Your task to perform on an android device: empty trash in google photos Image 0: 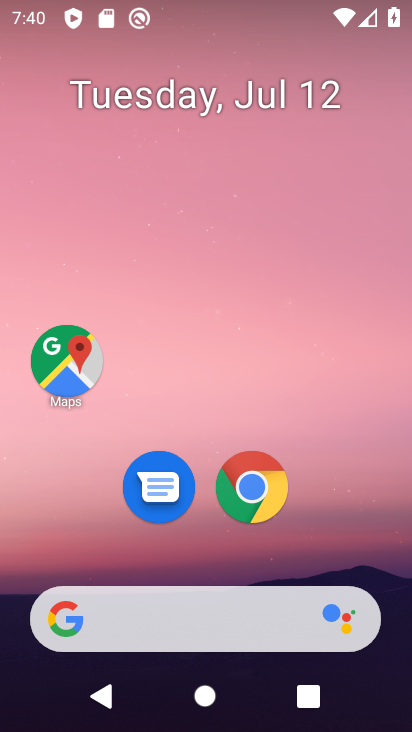
Step 0: drag from (218, 477) to (287, 19)
Your task to perform on an android device: empty trash in google photos Image 1: 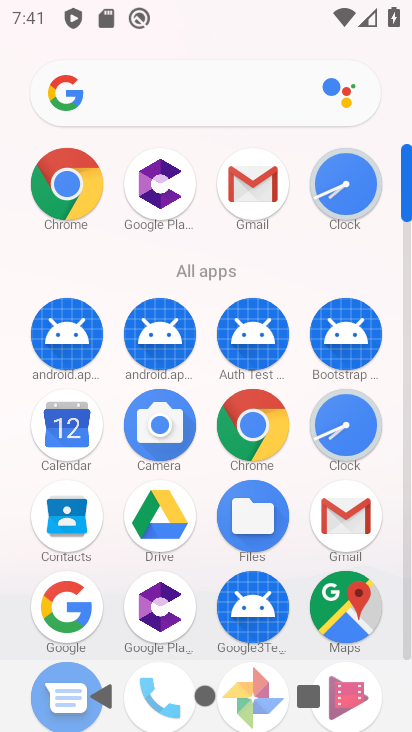
Step 1: drag from (207, 557) to (251, 253)
Your task to perform on an android device: empty trash in google photos Image 2: 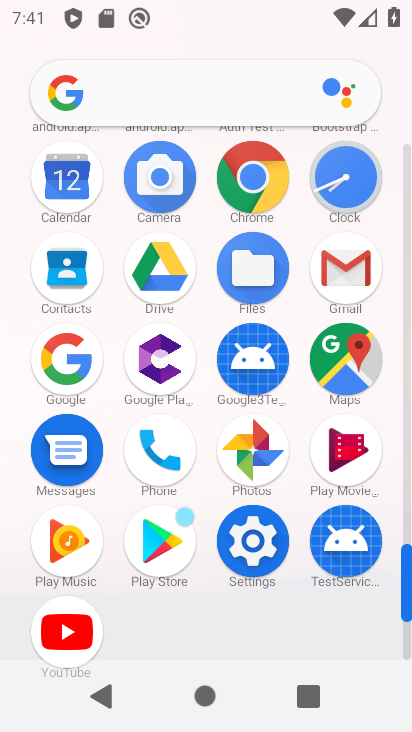
Step 2: click (260, 450)
Your task to perform on an android device: empty trash in google photos Image 3: 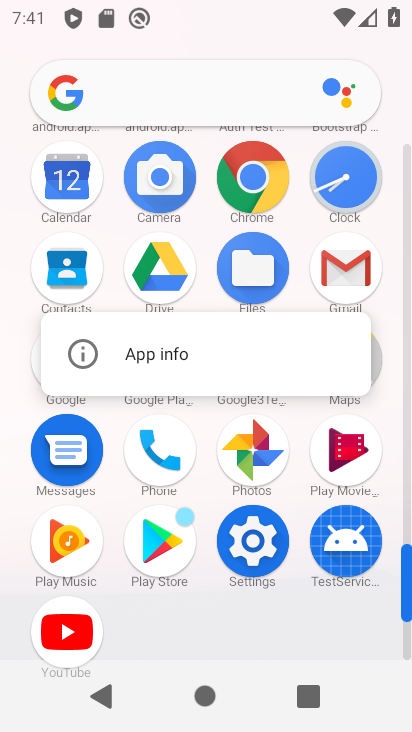
Step 3: click (269, 459)
Your task to perform on an android device: empty trash in google photos Image 4: 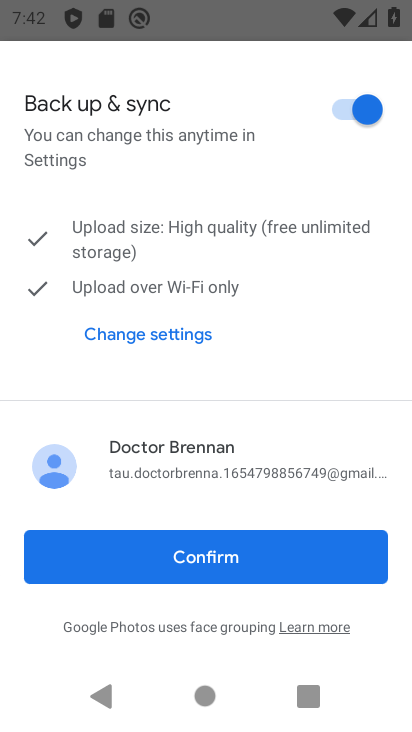
Step 4: click (264, 552)
Your task to perform on an android device: empty trash in google photos Image 5: 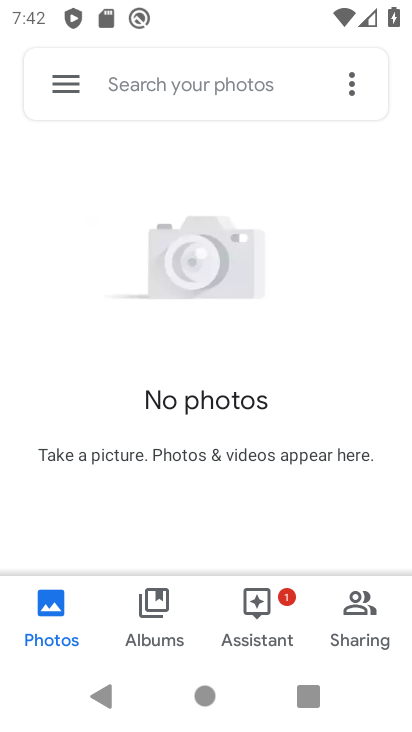
Step 5: click (70, 92)
Your task to perform on an android device: empty trash in google photos Image 6: 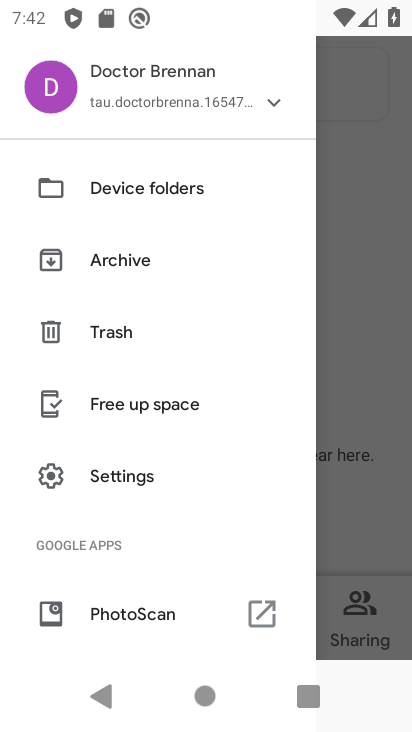
Step 6: click (78, 329)
Your task to perform on an android device: empty trash in google photos Image 7: 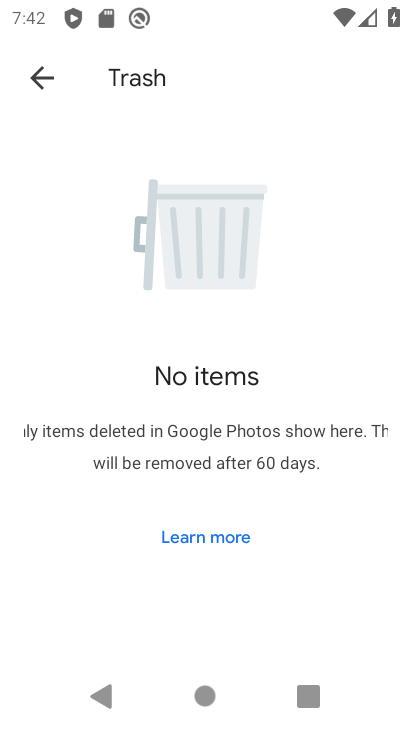
Step 7: task complete